Your task to perform on an android device: open chrome privacy settings Image 0: 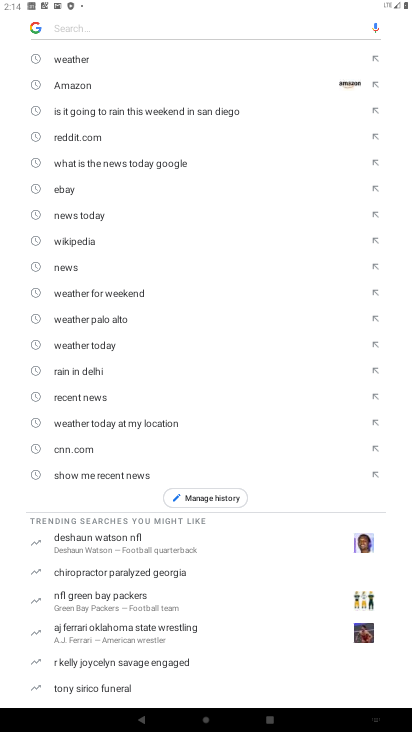
Step 0: press home button
Your task to perform on an android device: open chrome privacy settings Image 1: 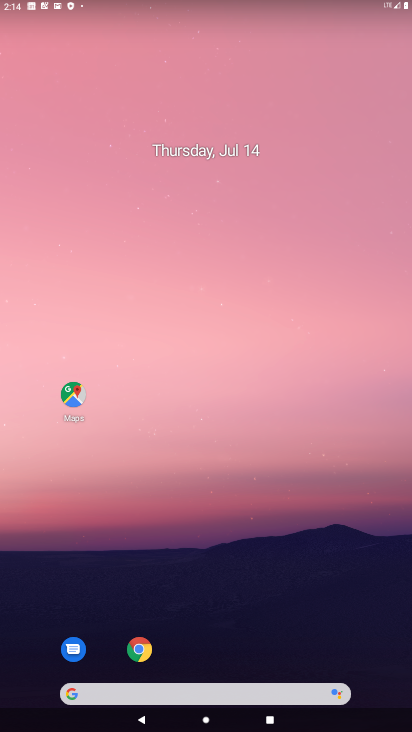
Step 1: drag from (362, 661) to (234, 59)
Your task to perform on an android device: open chrome privacy settings Image 2: 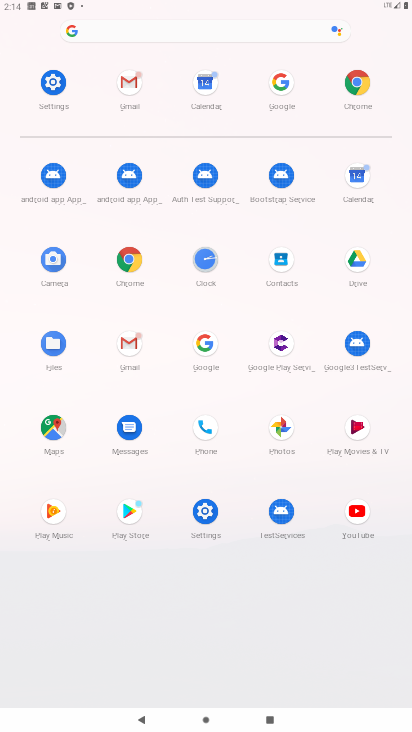
Step 2: click (354, 81)
Your task to perform on an android device: open chrome privacy settings Image 3: 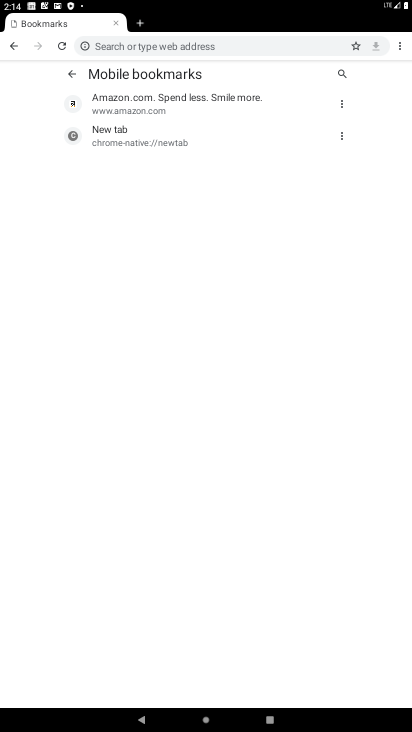
Step 3: click (403, 45)
Your task to perform on an android device: open chrome privacy settings Image 4: 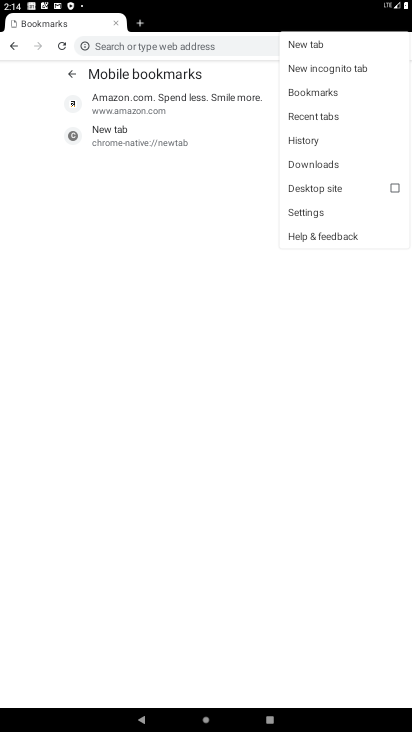
Step 4: click (297, 210)
Your task to perform on an android device: open chrome privacy settings Image 5: 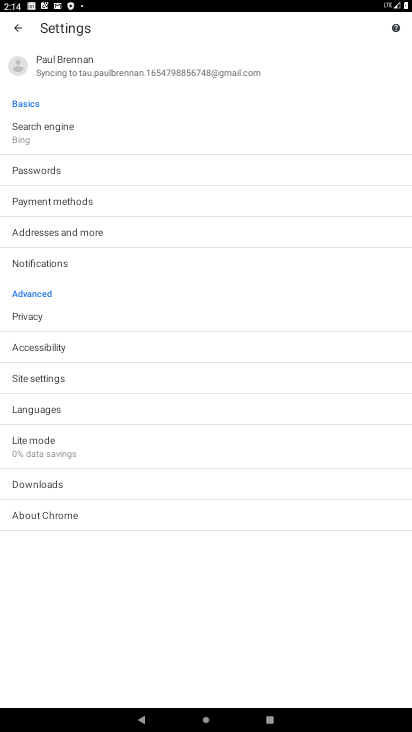
Step 5: click (48, 327)
Your task to perform on an android device: open chrome privacy settings Image 6: 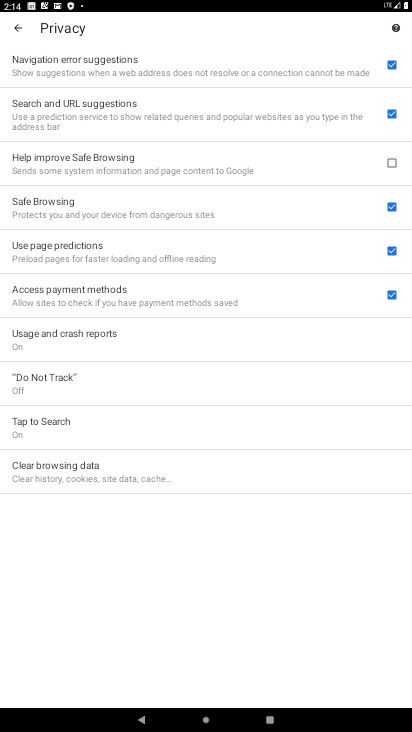
Step 6: task complete